Your task to perform on an android device: What is the speed of a bicycle? Image 0: 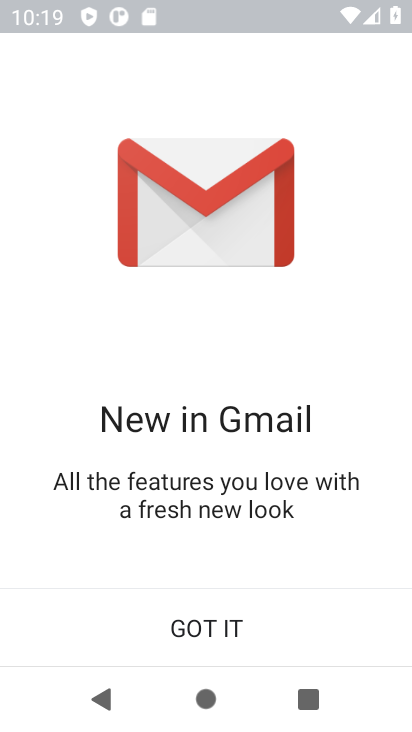
Step 0: press home button
Your task to perform on an android device: What is the speed of a bicycle? Image 1: 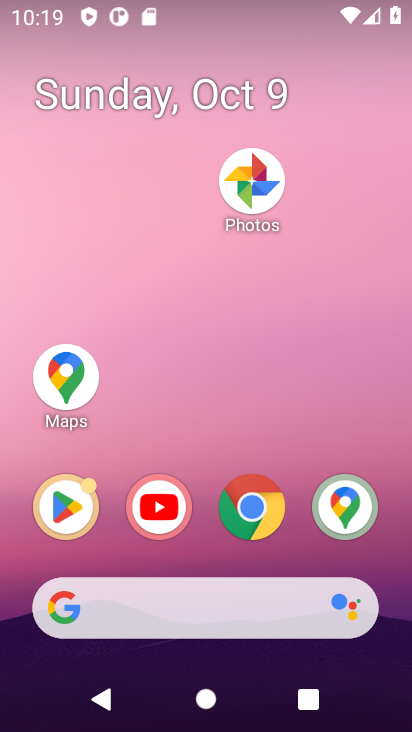
Step 1: drag from (210, 561) to (200, 21)
Your task to perform on an android device: What is the speed of a bicycle? Image 2: 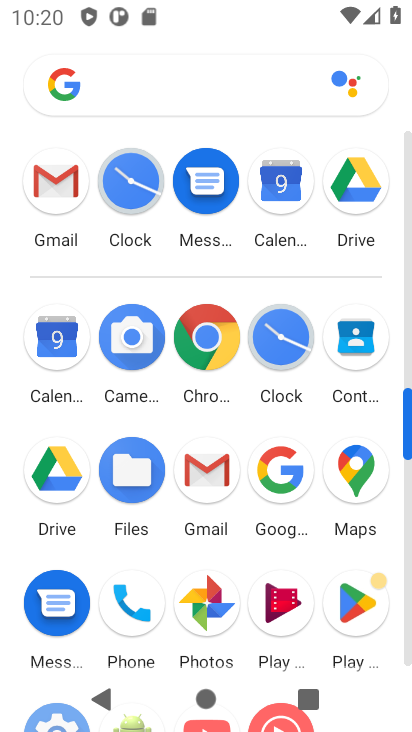
Step 2: click (209, 338)
Your task to perform on an android device: What is the speed of a bicycle? Image 3: 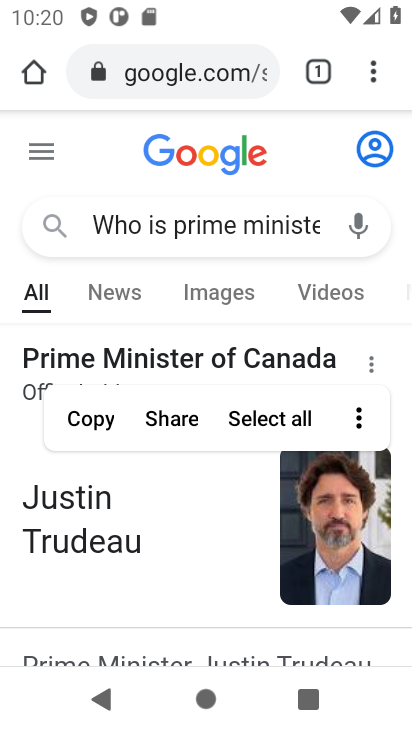
Step 3: click (235, 73)
Your task to perform on an android device: What is the speed of a bicycle? Image 4: 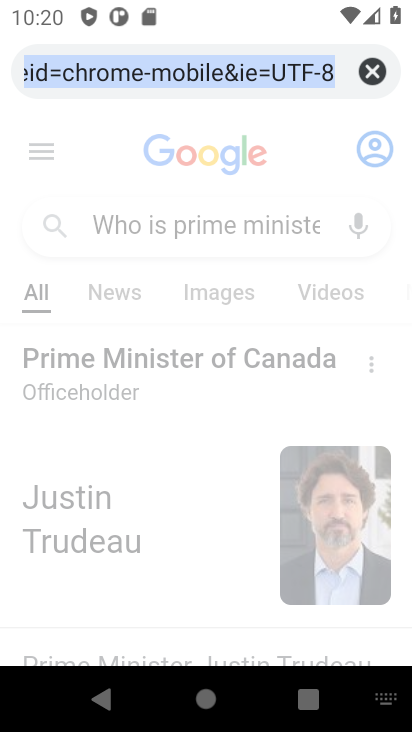
Step 4: type "What is the speed of a bicycle?"
Your task to perform on an android device: What is the speed of a bicycle? Image 5: 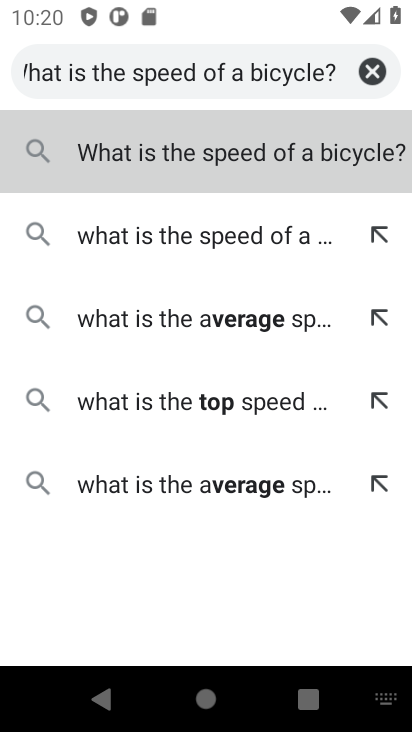
Step 5: press enter
Your task to perform on an android device: What is the speed of a bicycle? Image 6: 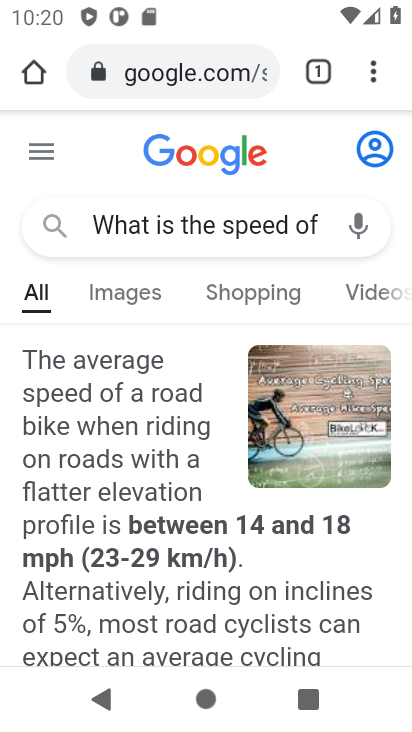
Step 6: task complete